Your task to perform on an android device: check the backup settings in the google photos Image 0: 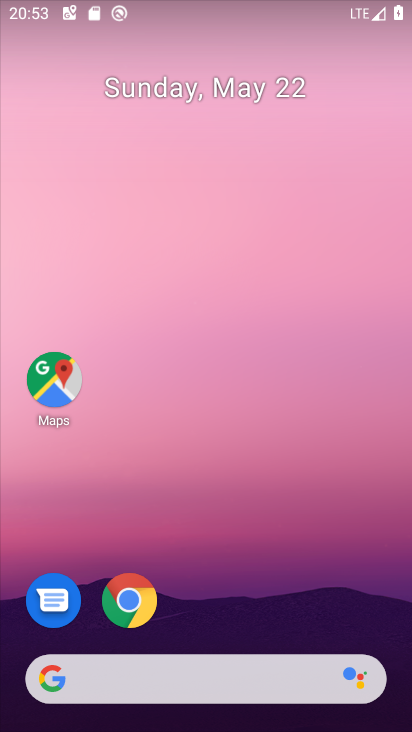
Step 0: drag from (244, 584) to (281, 172)
Your task to perform on an android device: check the backup settings in the google photos Image 1: 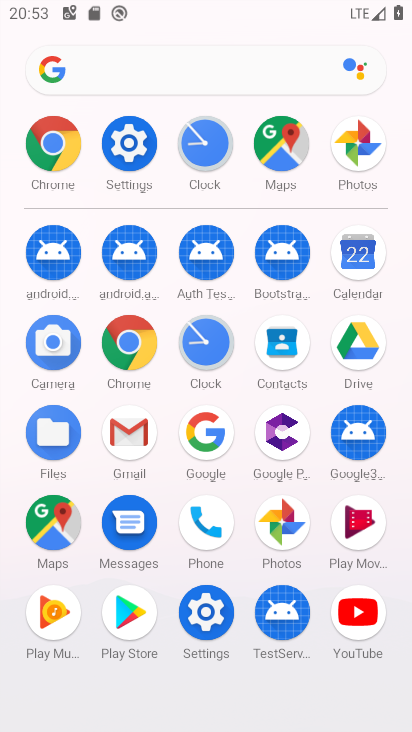
Step 1: click (285, 533)
Your task to perform on an android device: check the backup settings in the google photos Image 2: 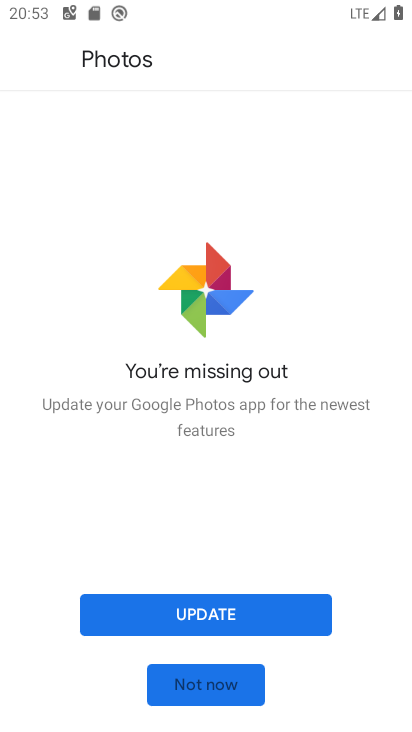
Step 2: click (200, 682)
Your task to perform on an android device: check the backup settings in the google photos Image 3: 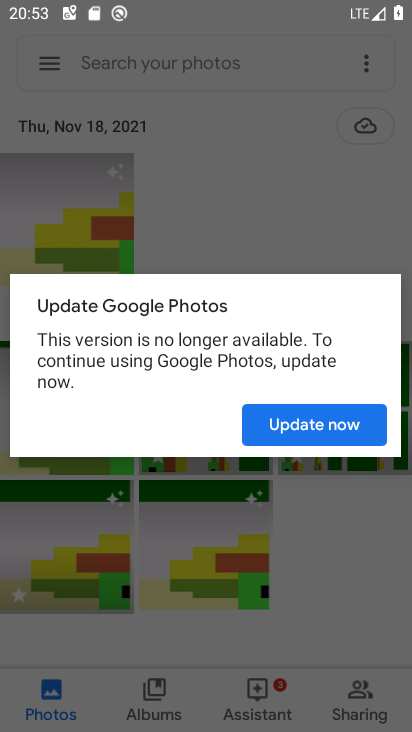
Step 3: click (291, 417)
Your task to perform on an android device: check the backup settings in the google photos Image 4: 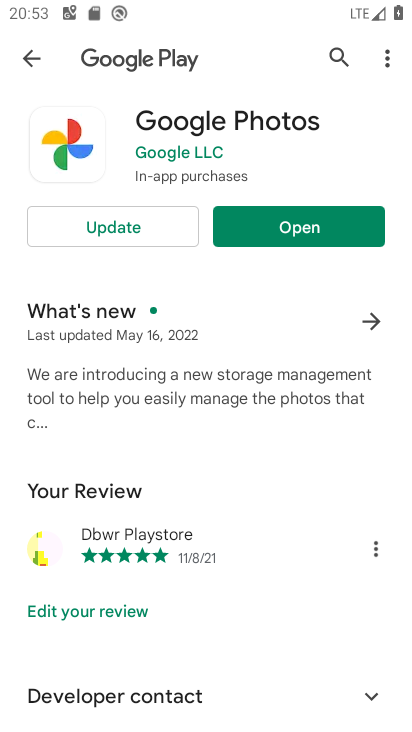
Step 4: click (302, 216)
Your task to perform on an android device: check the backup settings in the google photos Image 5: 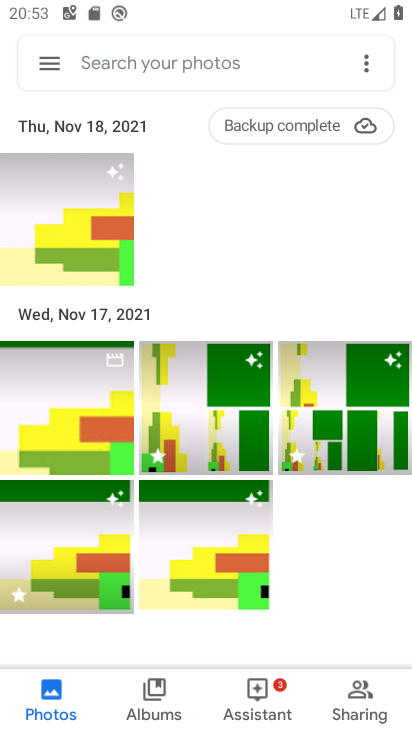
Step 5: click (43, 66)
Your task to perform on an android device: check the backup settings in the google photos Image 6: 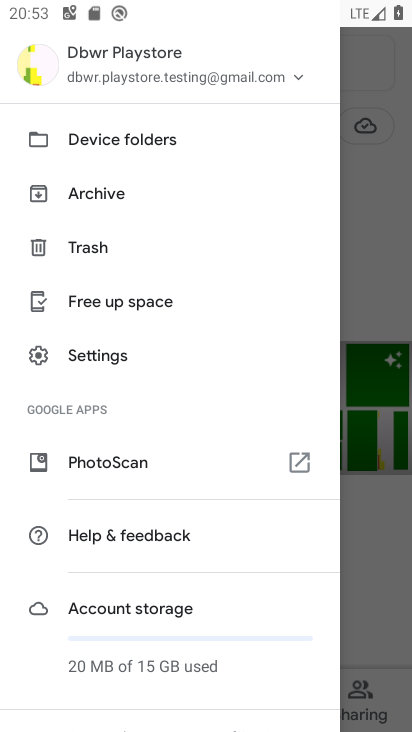
Step 6: click (119, 354)
Your task to perform on an android device: check the backup settings in the google photos Image 7: 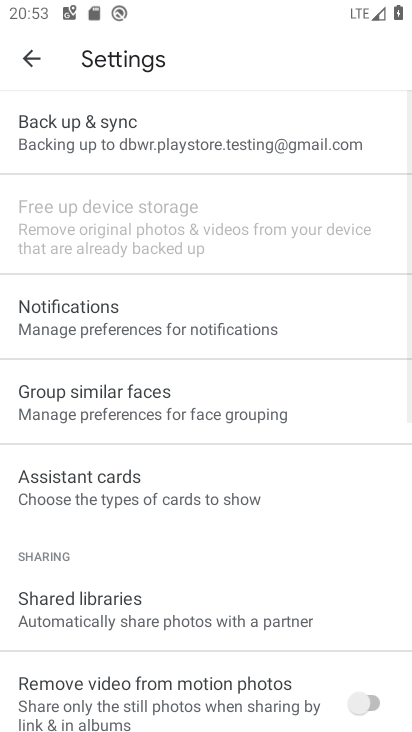
Step 7: click (129, 150)
Your task to perform on an android device: check the backup settings in the google photos Image 8: 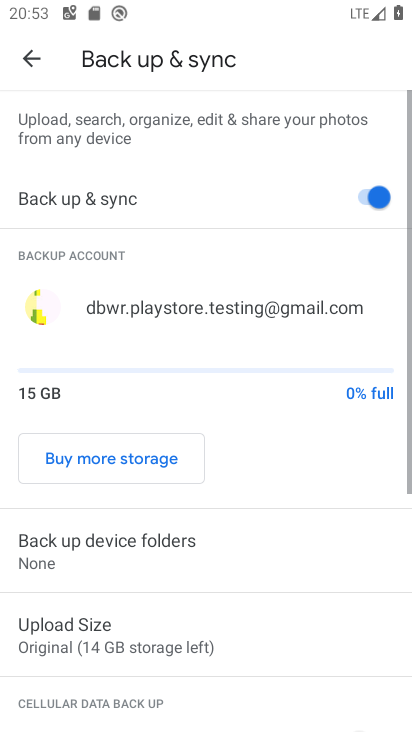
Step 8: task complete